Your task to perform on an android device: open wifi settings Image 0: 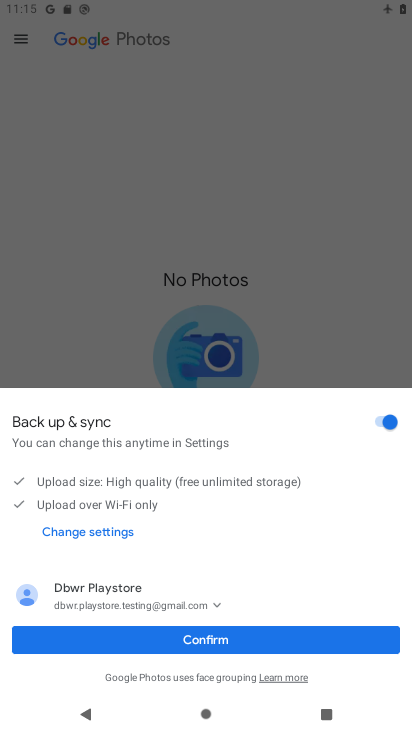
Step 0: press home button
Your task to perform on an android device: open wifi settings Image 1: 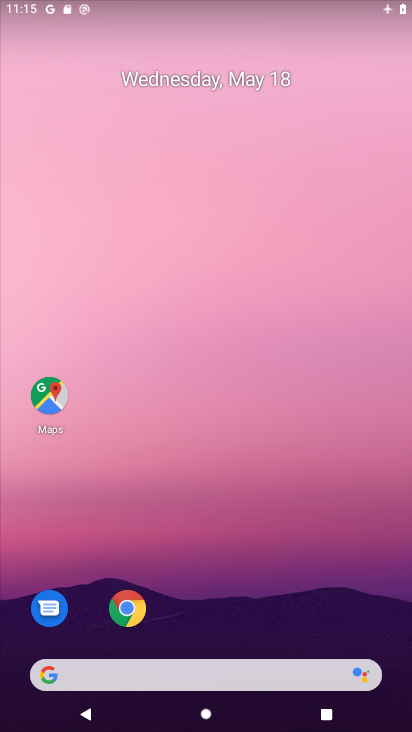
Step 1: drag from (224, 584) to (182, 231)
Your task to perform on an android device: open wifi settings Image 2: 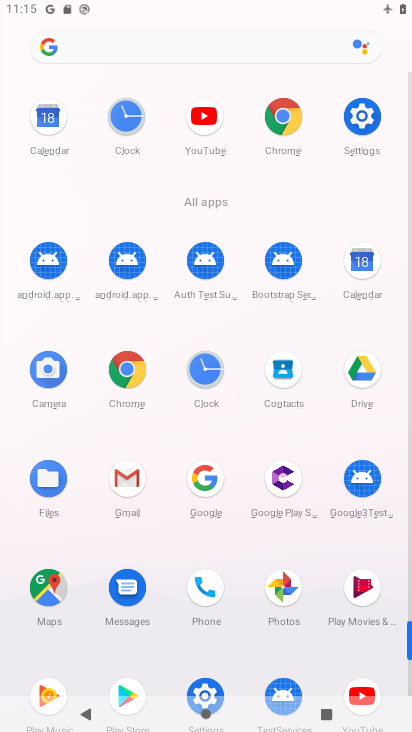
Step 2: click (365, 119)
Your task to perform on an android device: open wifi settings Image 3: 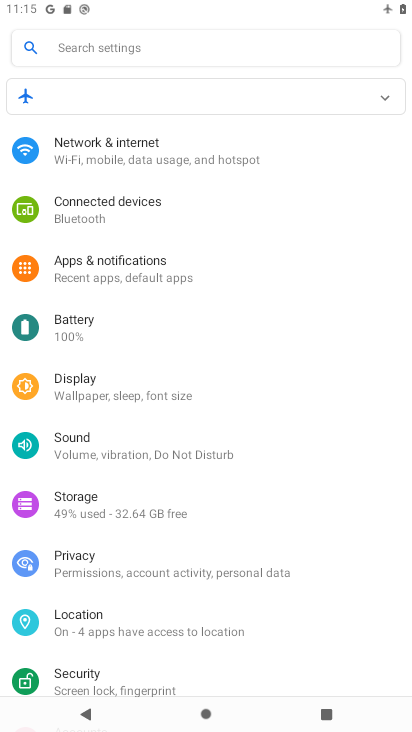
Step 3: click (78, 152)
Your task to perform on an android device: open wifi settings Image 4: 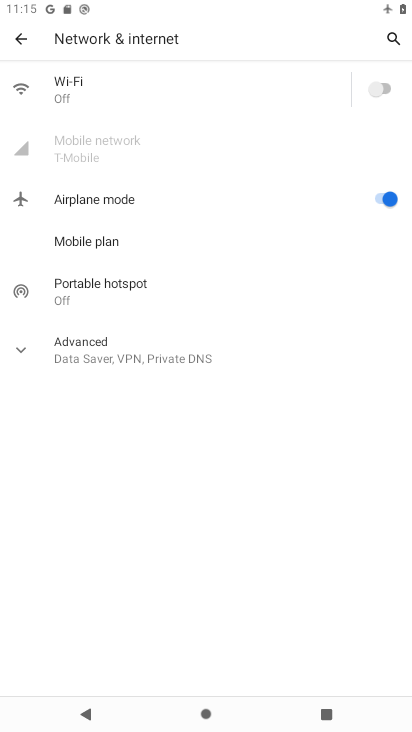
Step 4: click (49, 94)
Your task to perform on an android device: open wifi settings Image 5: 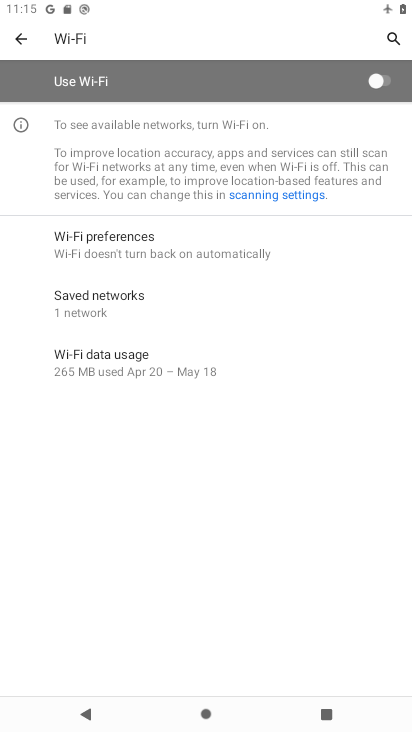
Step 5: task complete